Your task to perform on an android device: Search for "apple airpods" on target.com, select the first entry, add it to the cart, then select checkout. Image 0: 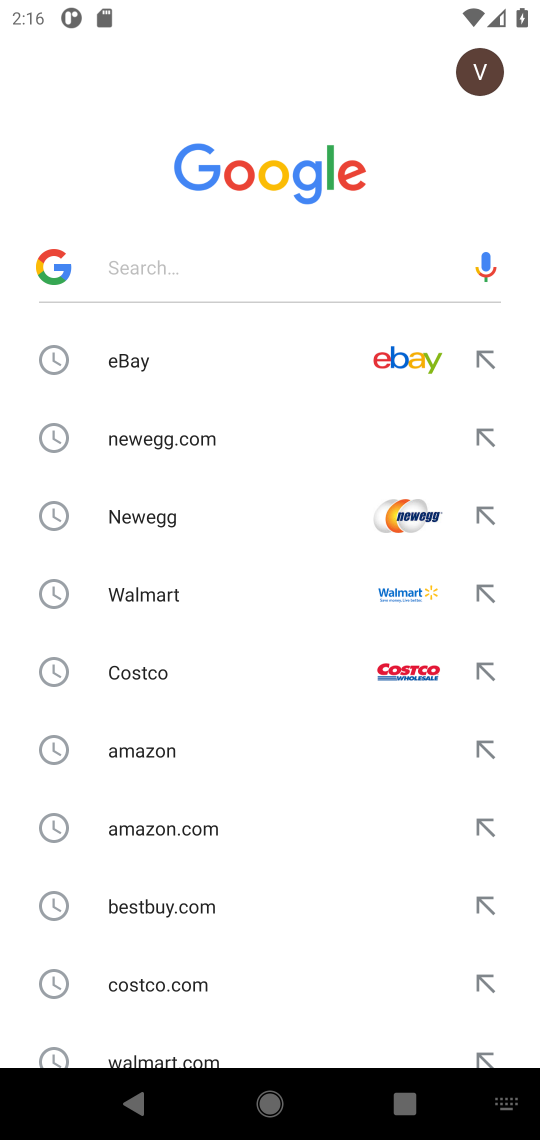
Step 0: press home button
Your task to perform on an android device: Search for "apple airpods" on target.com, select the first entry, add it to the cart, then select checkout. Image 1: 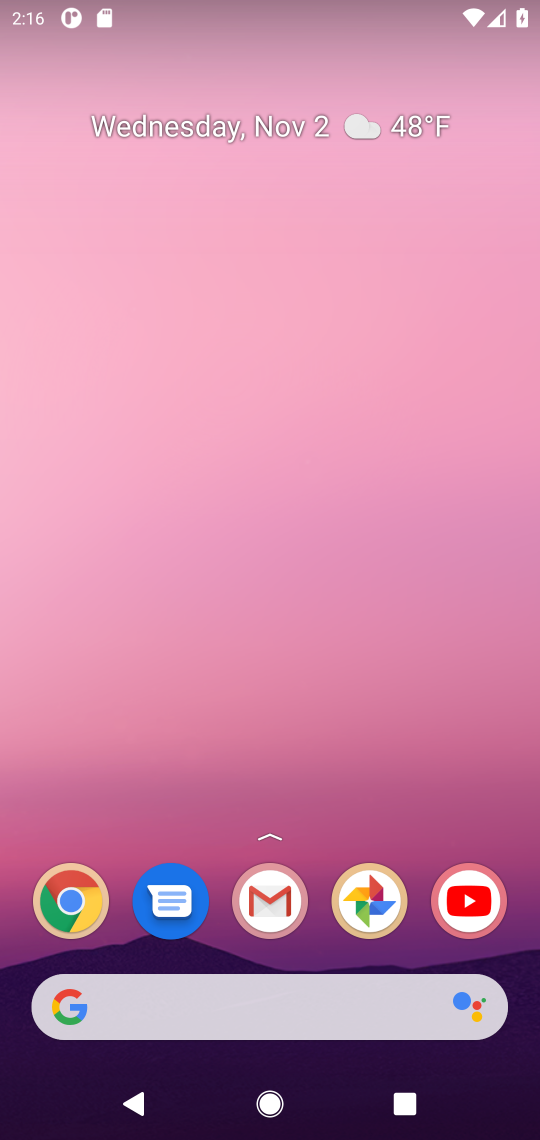
Step 1: drag from (330, 957) to (282, 155)
Your task to perform on an android device: Search for "apple airpods" on target.com, select the first entry, add it to the cart, then select checkout. Image 2: 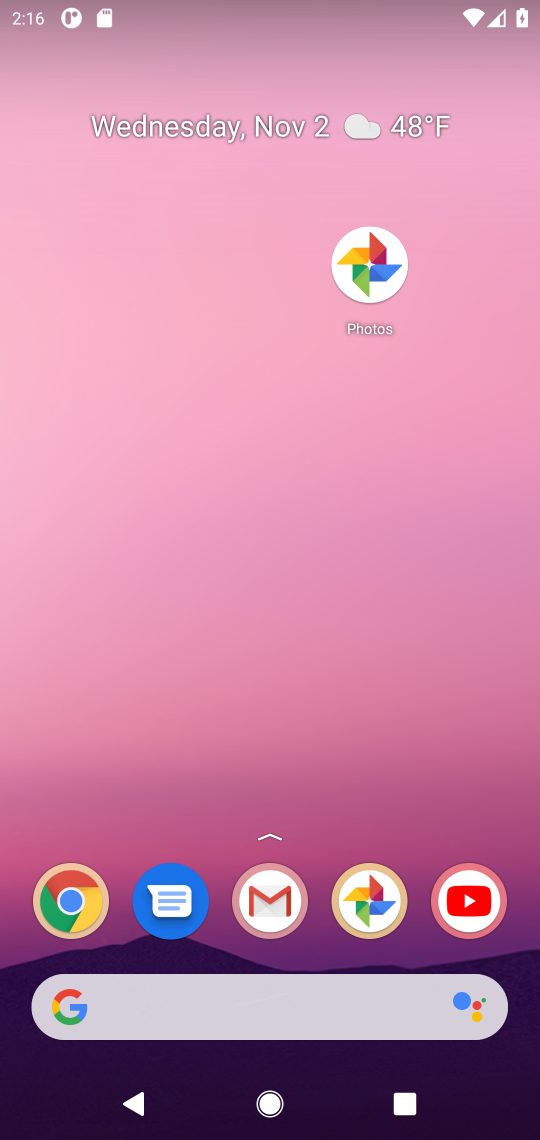
Step 2: drag from (318, 948) to (330, 187)
Your task to perform on an android device: Search for "apple airpods" on target.com, select the first entry, add it to the cart, then select checkout. Image 3: 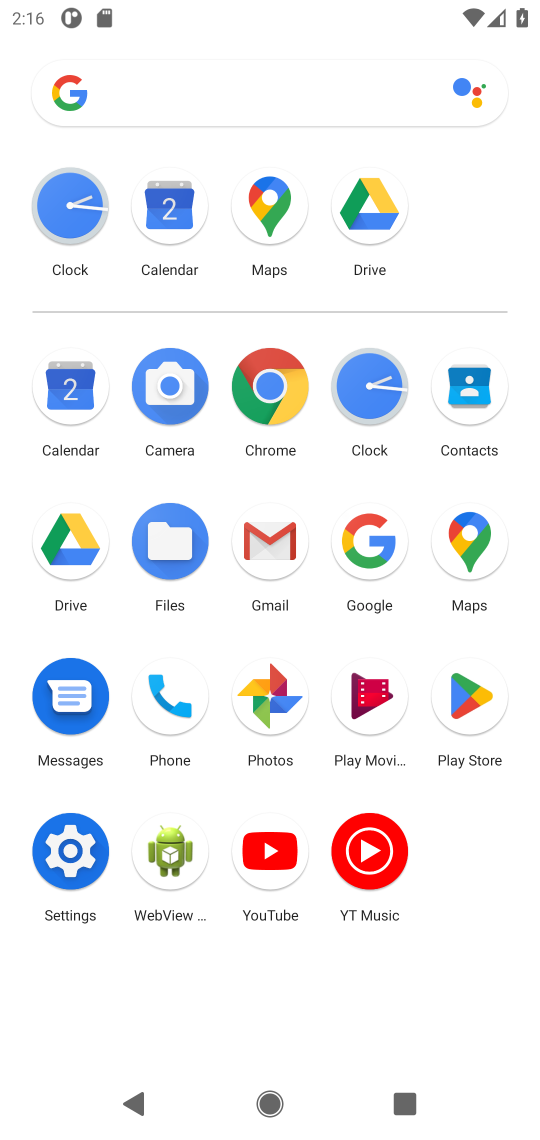
Step 3: click (274, 395)
Your task to perform on an android device: Search for "apple airpods" on target.com, select the first entry, add it to the cart, then select checkout. Image 4: 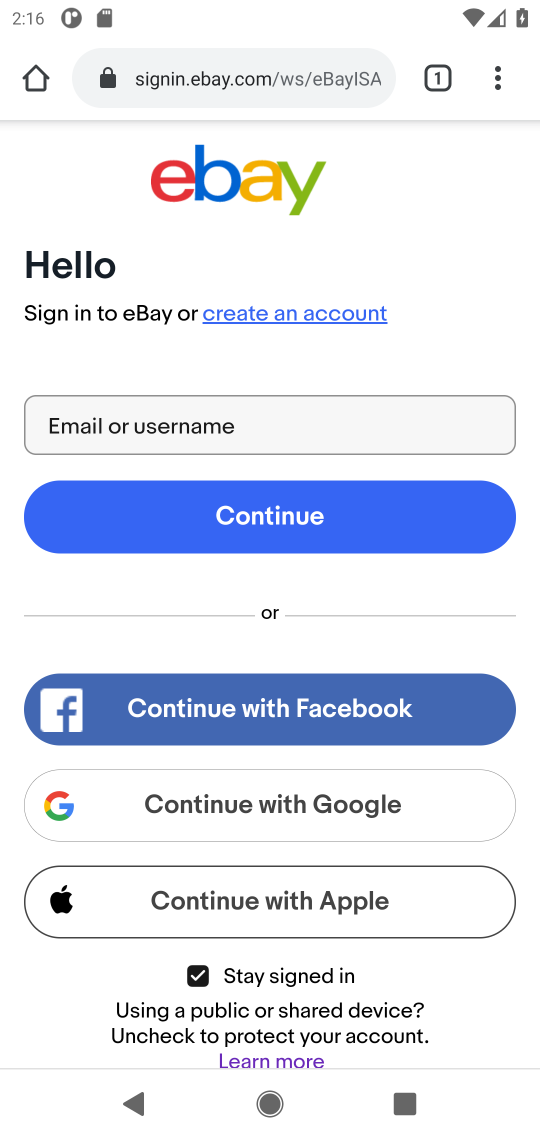
Step 4: click (283, 73)
Your task to perform on an android device: Search for "apple airpods" on target.com, select the first entry, add it to the cart, then select checkout. Image 5: 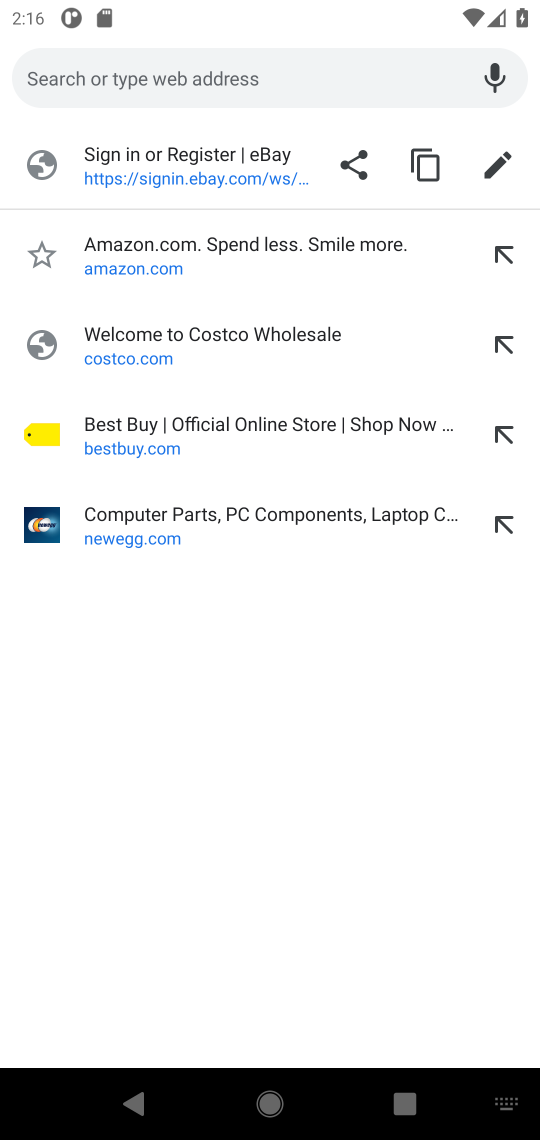
Step 5: type "target.com"
Your task to perform on an android device: Search for "apple airpods" on target.com, select the first entry, add it to the cart, then select checkout. Image 6: 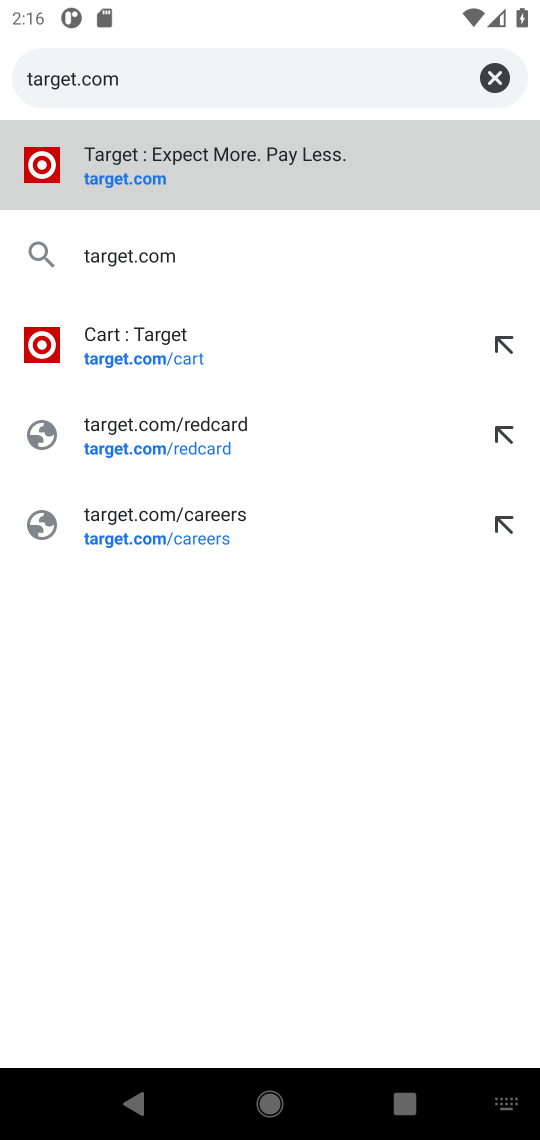
Step 6: press enter
Your task to perform on an android device: Search for "apple airpods" on target.com, select the first entry, add it to the cart, then select checkout. Image 7: 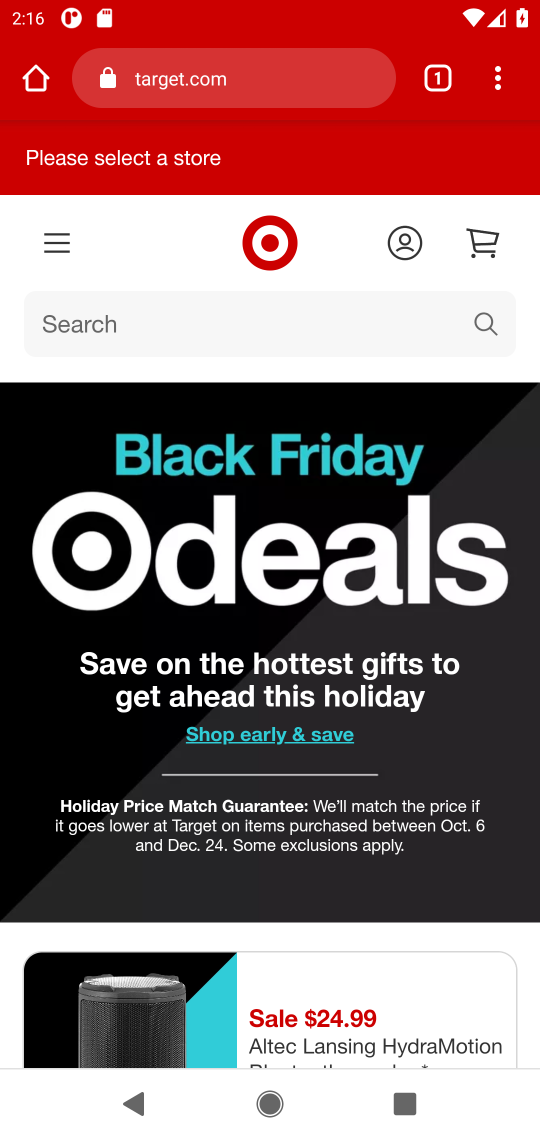
Step 7: click (290, 333)
Your task to perform on an android device: Search for "apple airpods" on target.com, select the first entry, add it to the cart, then select checkout. Image 8: 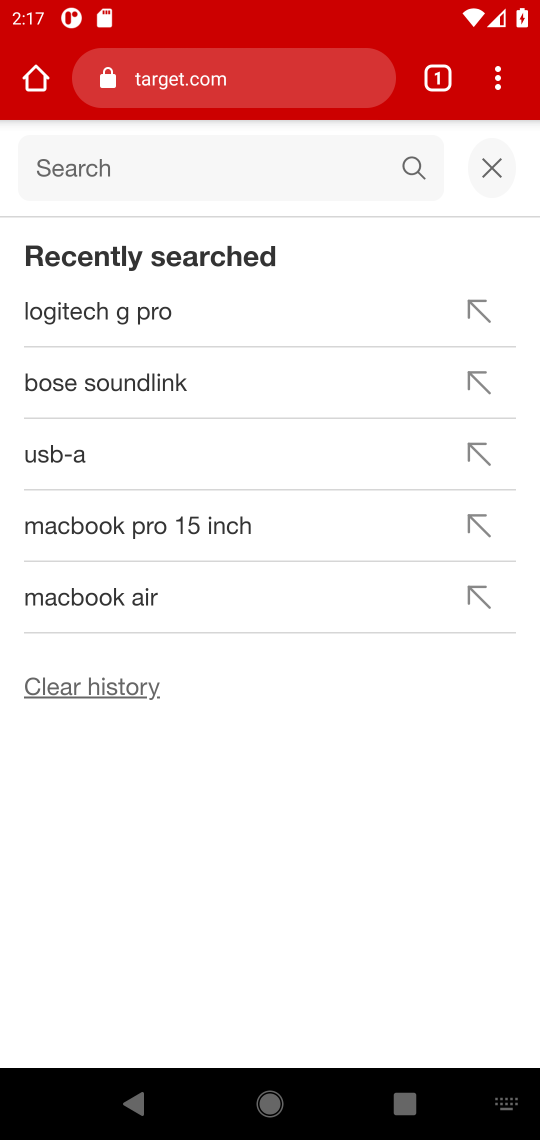
Step 8: type "apple airpods"
Your task to perform on an android device: Search for "apple airpods" on target.com, select the first entry, add it to the cart, then select checkout. Image 9: 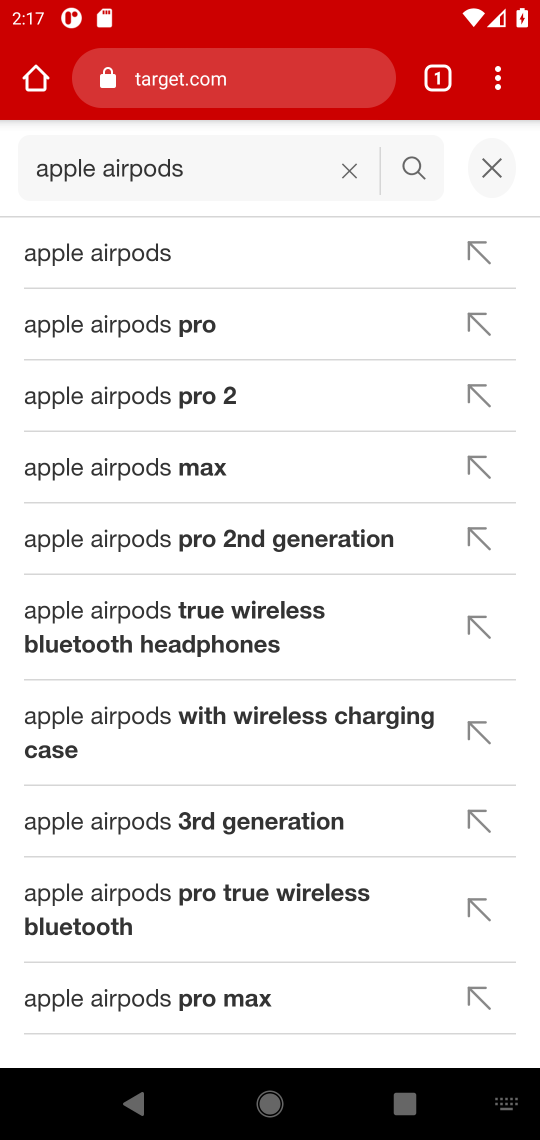
Step 9: press enter
Your task to perform on an android device: Search for "apple airpods" on target.com, select the first entry, add it to the cart, then select checkout. Image 10: 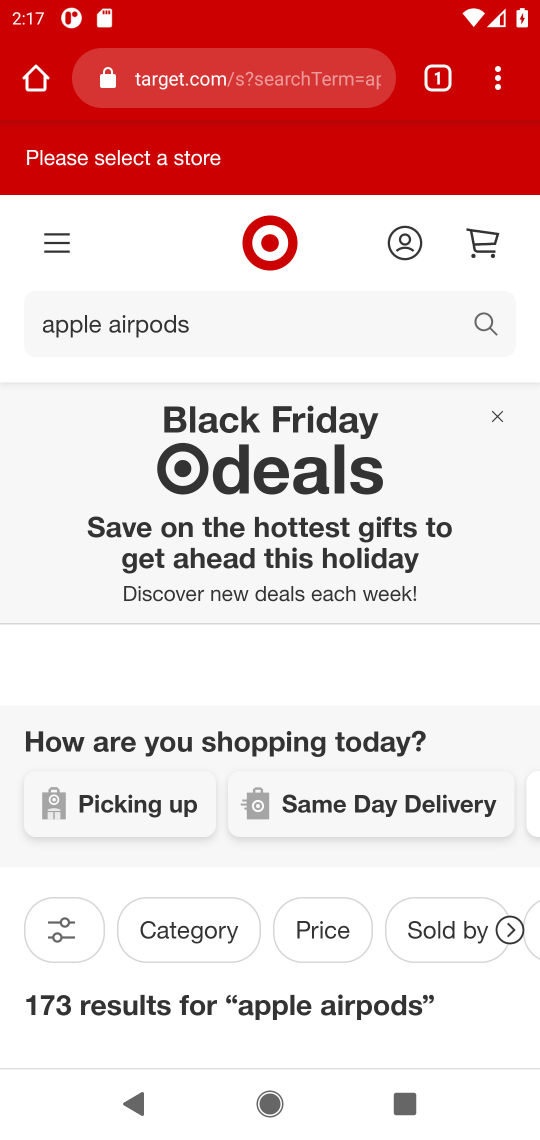
Step 10: drag from (301, 935) to (357, 235)
Your task to perform on an android device: Search for "apple airpods" on target.com, select the first entry, add it to the cart, then select checkout. Image 11: 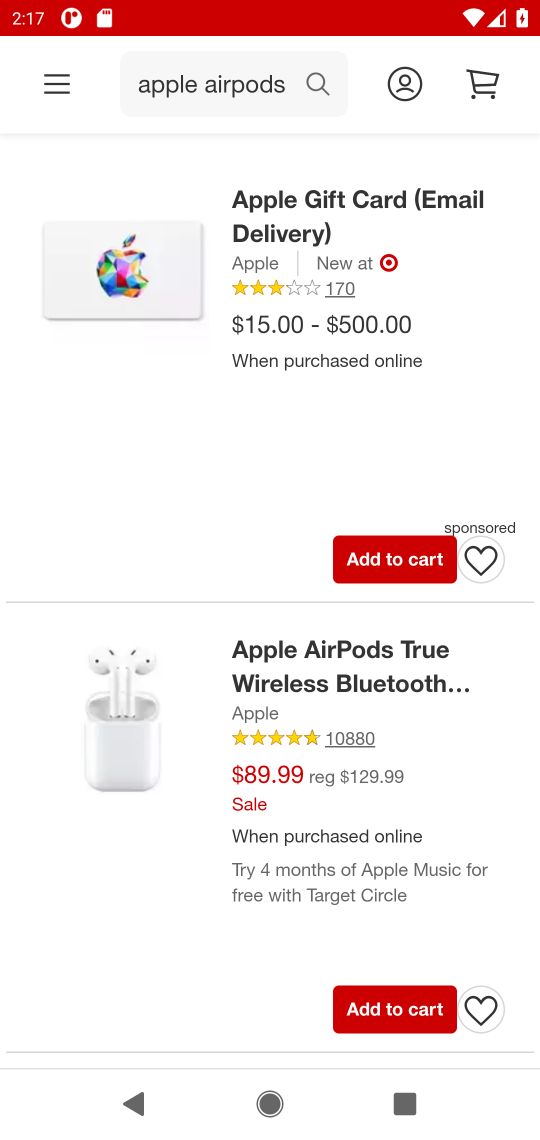
Step 11: drag from (112, 424) to (152, 313)
Your task to perform on an android device: Search for "apple airpods" on target.com, select the first entry, add it to the cart, then select checkout. Image 12: 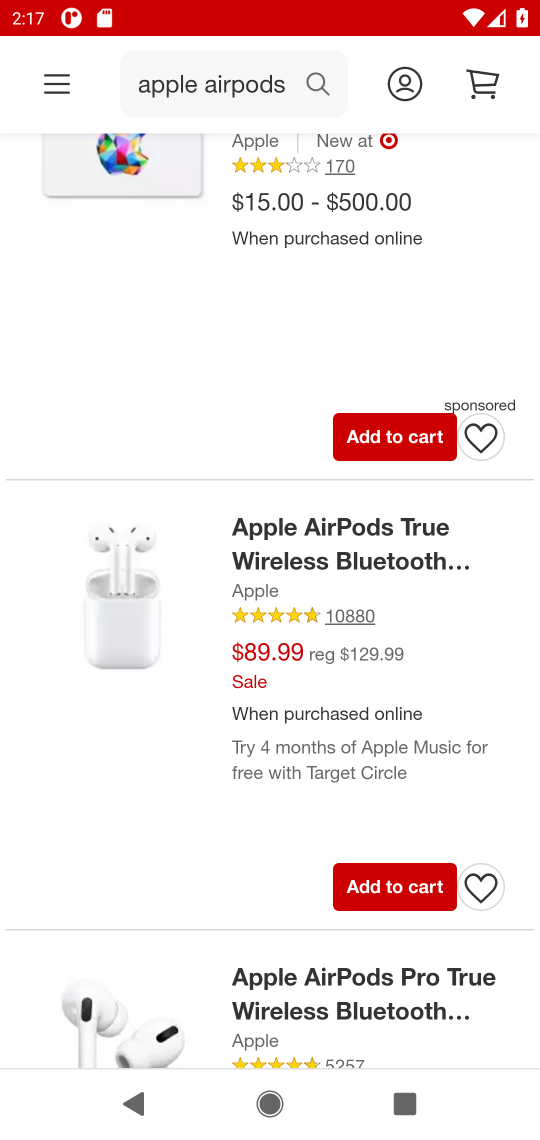
Step 12: click (384, 954)
Your task to perform on an android device: Search for "apple airpods" on target.com, select the first entry, add it to the cart, then select checkout. Image 13: 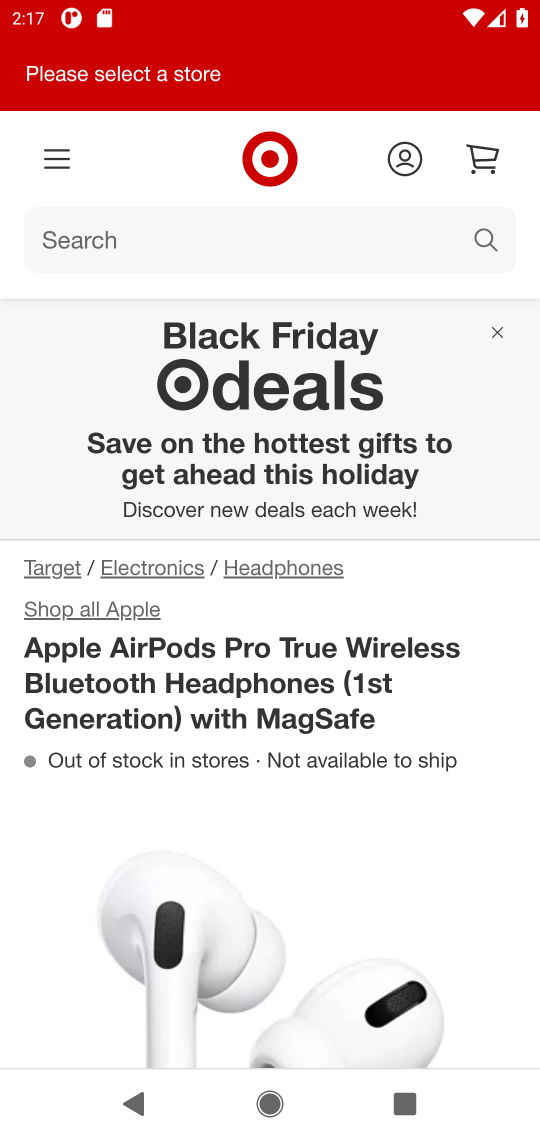
Step 13: drag from (424, 840) to (372, 37)
Your task to perform on an android device: Search for "apple airpods" on target.com, select the first entry, add it to the cart, then select checkout. Image 14: 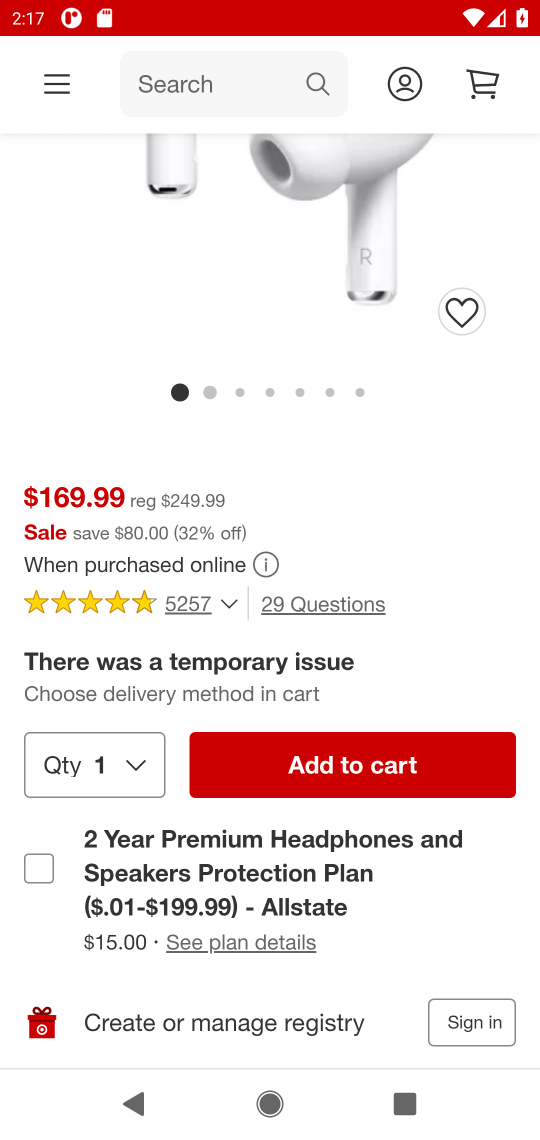
Step 14: click (467, 778)
Your task to perform on an android device: Search for "apple airpods" on target.com, select the first entry, add it to the cart, then select checkout. Image 15: 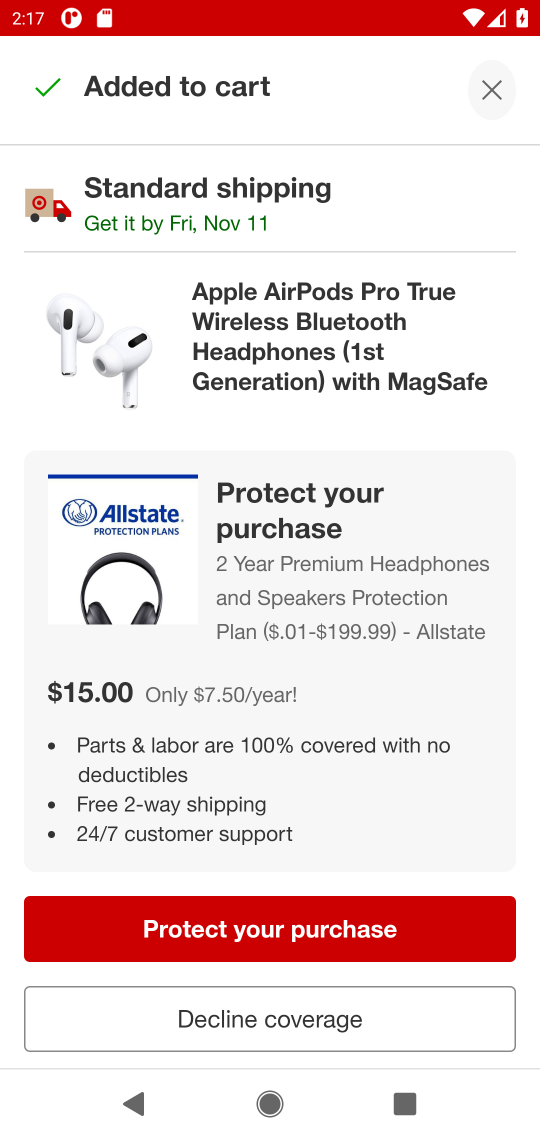
Step 15: click (254, 1026)
Your task to perform on an android device: Search for "apple airpods" on target.com, select the first entry, add it to the cart, then select checkout. Image 16: 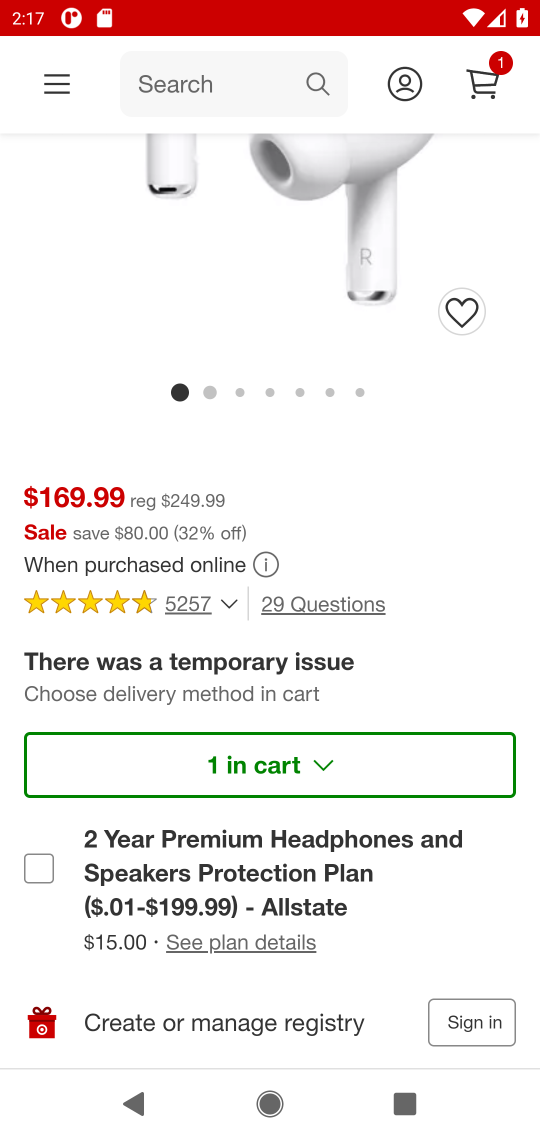
Step 16: click (493, 71)
Your task to perform on an android device: Search for "apple airpods" on target.com, select the first entry, add it to the cart, then select checkout. Image 17: 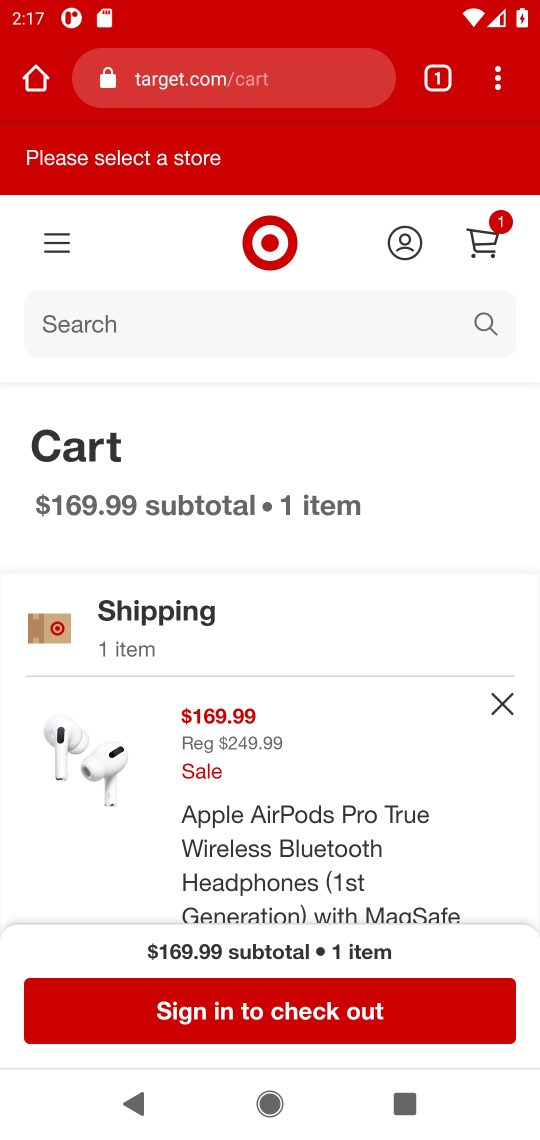
Step 17: click (323, 1021)
Your task to perform on an android device: Search for "apple airpods" on target.com, select the first entry, add it to the cart, then select checkout. Image 18: 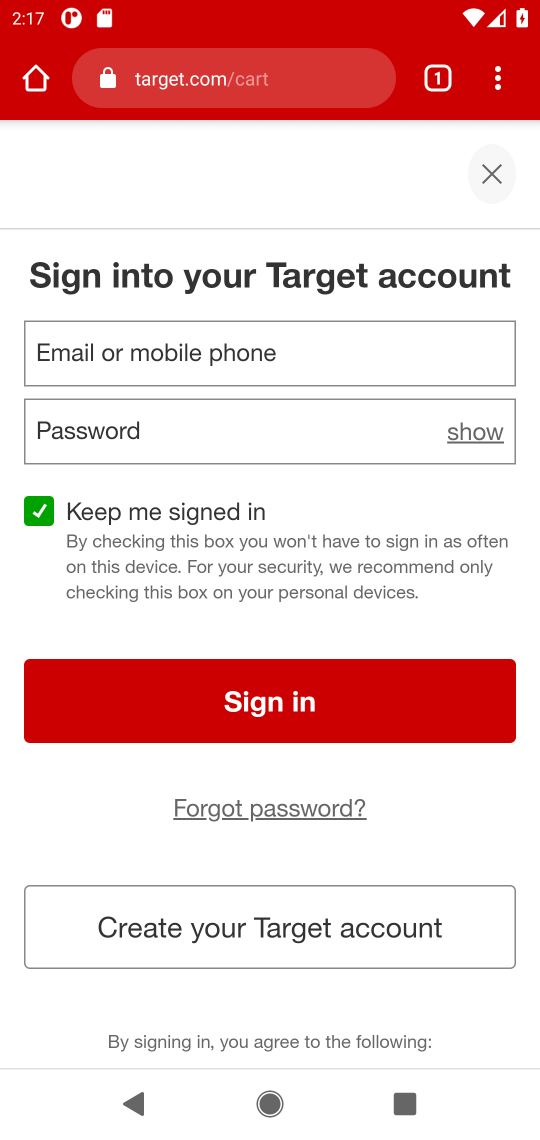
Step 18: task complete